Your task to perform on an android device: toggle sleep mode Image 0: 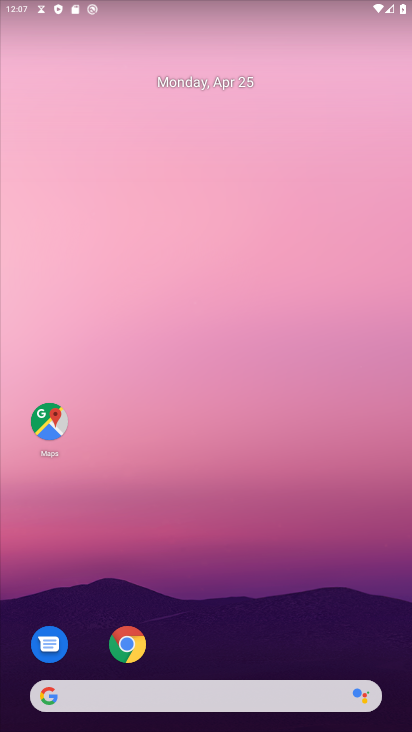
Step 0: drag from (339, 616) to (321, 2)
Your task to perform on an android device: toggle sleep mode Image 1: 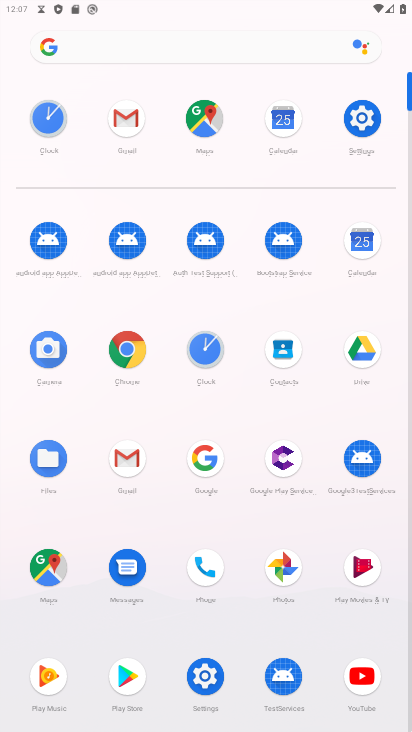
Step 1: click (359, 119)
Your task to perform on an android device: toggle sleep mode Image 2: 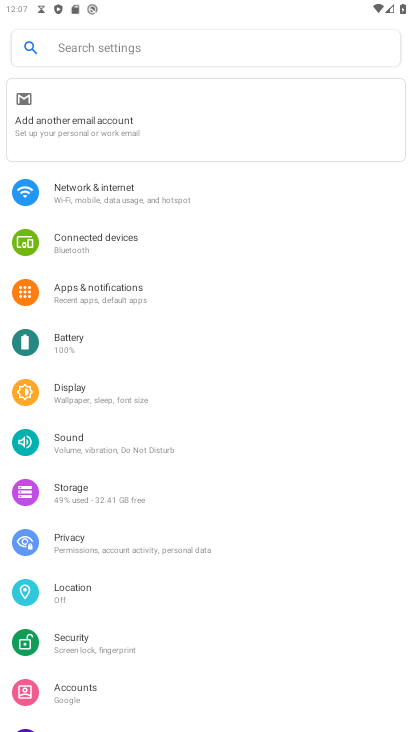
Step 2: click (73, 401)
Your task to perform on an android device: toggle sleep mode Image 3: 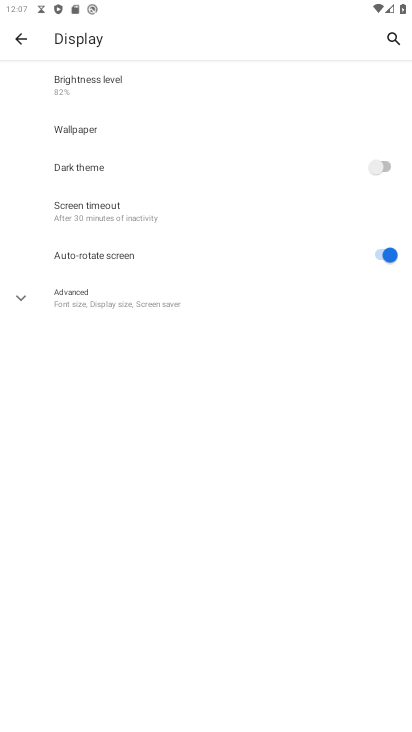
Step 3: click (17, 299)
Your task to perform on an android device: toggle sleep mode Image 4: 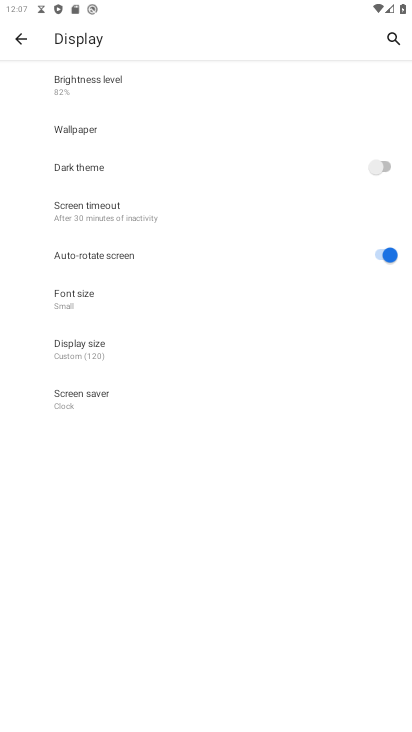
Step 4: task complete